Your task to perform on an android device: Check the news Image 0: 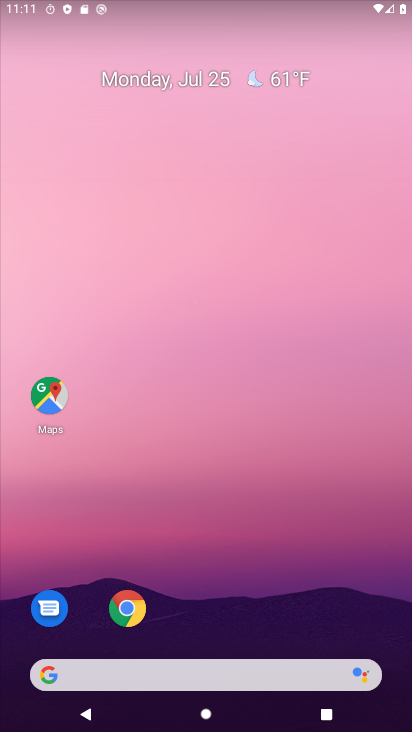
Step 0: drag from (237, 402) to (262, 2)
Your task to perform on an android device: Check the news Image 1: 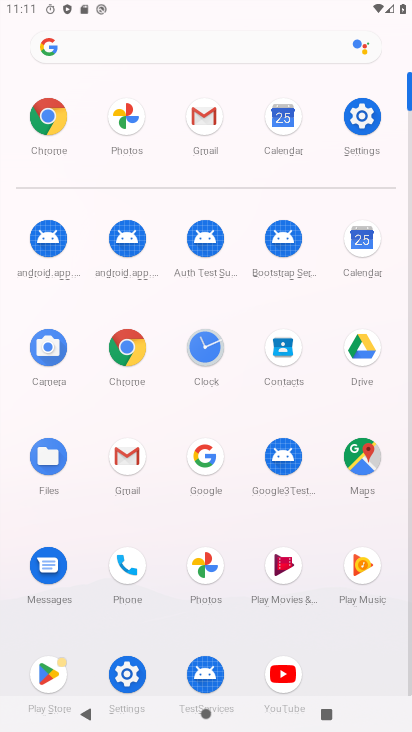
Step 1: click (50, 118)
Your task to perform on an android device: Check the news Image 2: 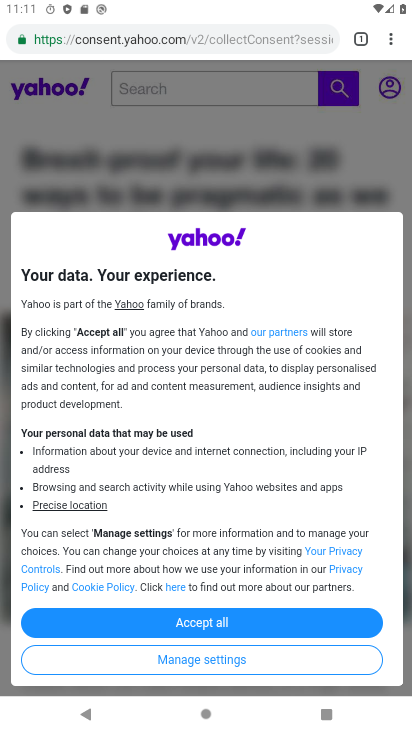
Step 2: task complete